Your task to perform on an android device: check data usage Image 0: 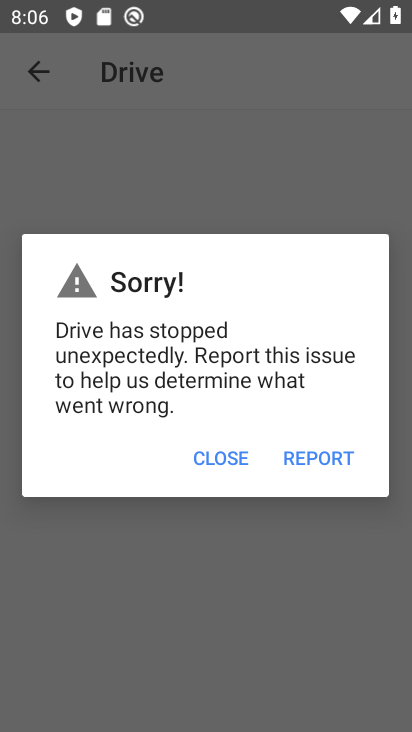
Step 0: press home button
Your task to perform on an android device: check data usage Image 1: 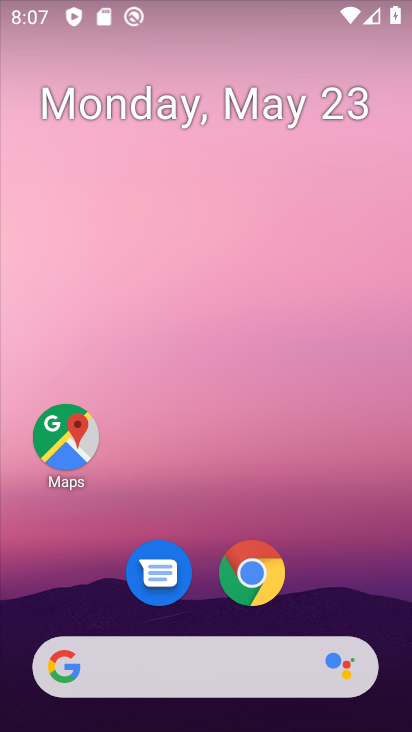
Step 1: drag from (211, 619) to (227, 72)
Your task to perform on an android device: check data usage Image 2: 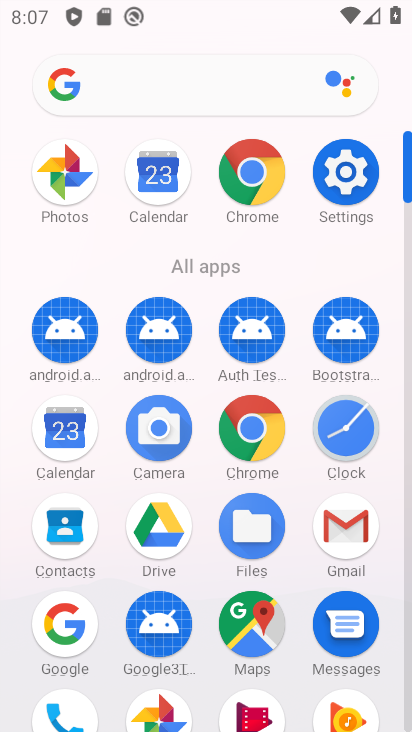
Step 2: click (343, 166)
Your task to perform on an android device: check data usage Image 3: 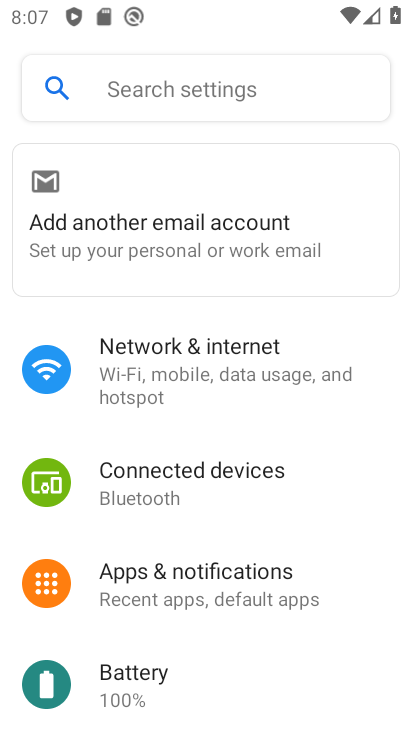
Step 3: click (213, 354)
Your task to perform on an android device: check data usage Image 4: 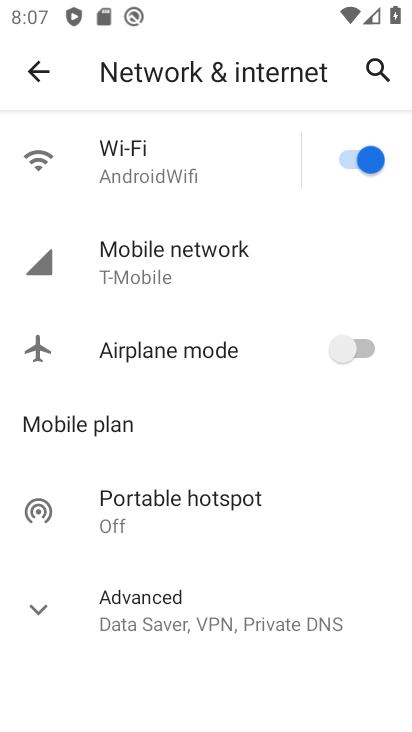
Step 4: click (188, 255)
Your task to perform on an android device: check data usage Image 5: 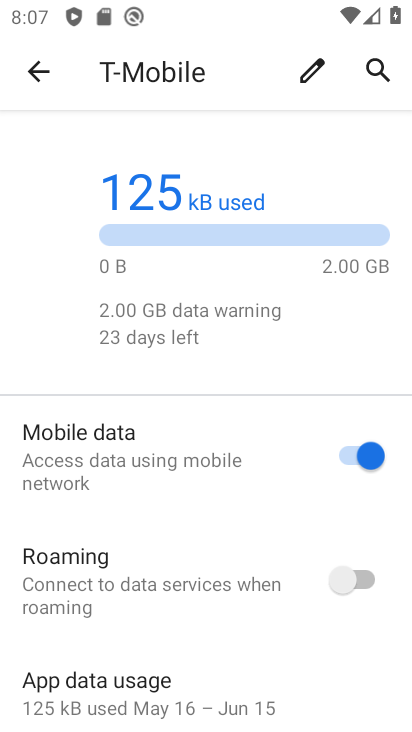
Step 5: click (202, 679)
Your task to perform on an android device: check data usage Image 6: 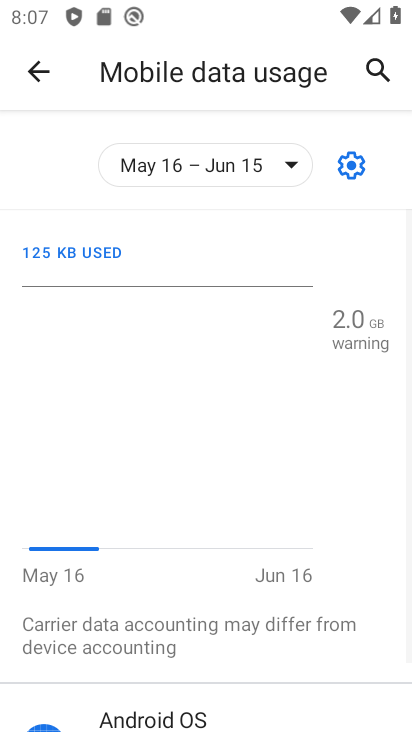
Step 6: task complete